Your task to perform on an android device: open chrome and create a bookmark for the current page Image 0: 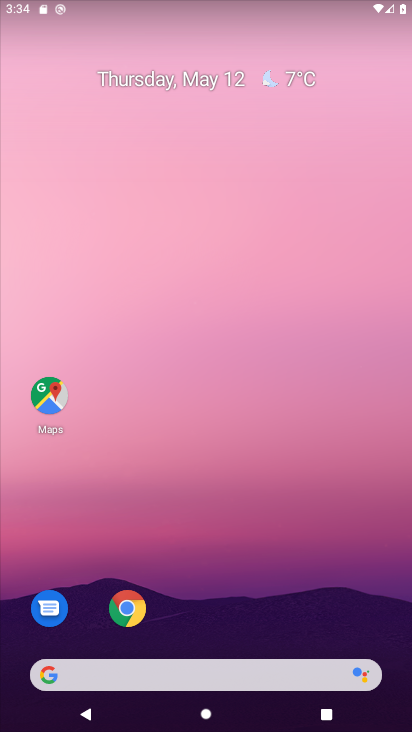
Step 0: click (132, 601)
Your task to perform on an android device: open chrome and create a bookmark for the current page Image 1: 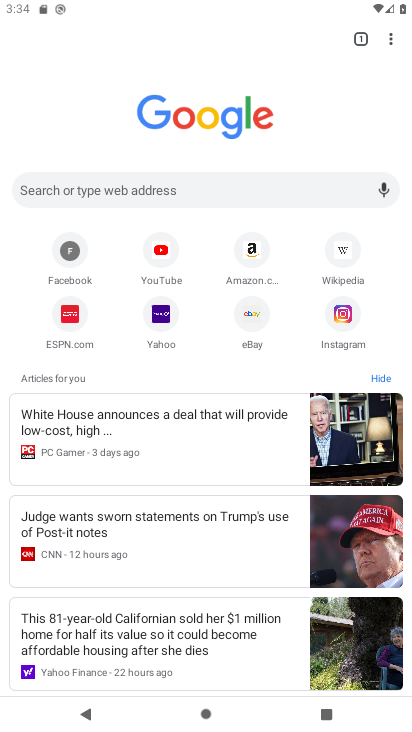
Step 1: task complete